Your task to perform on an android device: Open Youtube and go to "Your channel" Image 0: 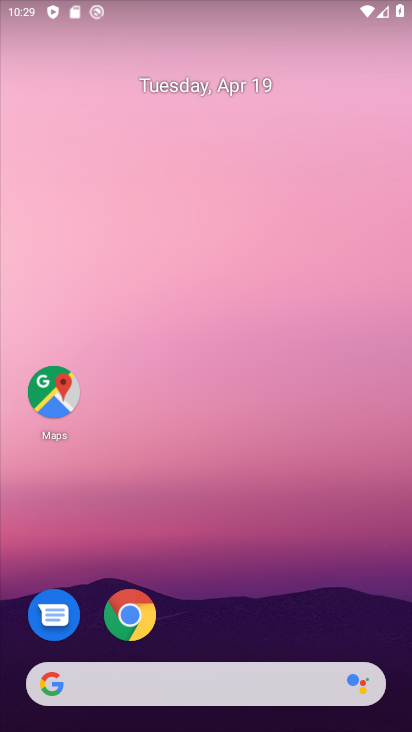
Step 0: drag from (240, 588) to (292, 157)
Your task to perform on an android device: Open Youtube and go to "Your channel" Image 1: 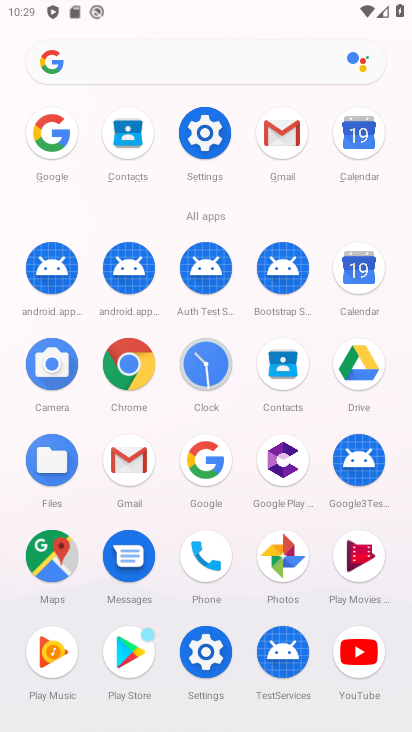
Step 1: click (359, 650)
Your task to perform on an android device: Open Youtube and go to "Your channel" Image 2: 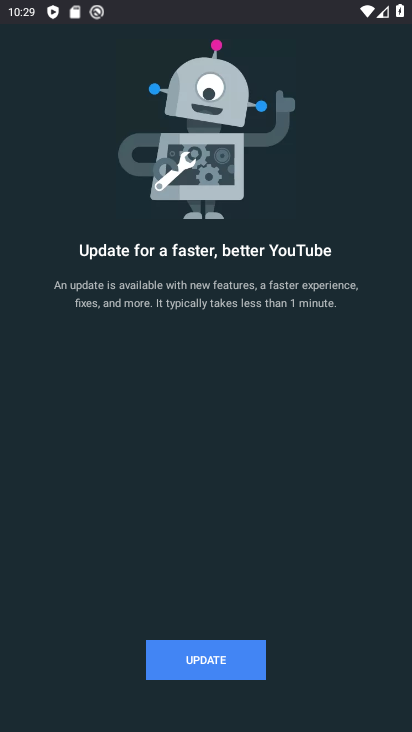
Step 2: click (204, 663)
Your task to perform on an android device: Open Youtube and go to "Your channel" Image 3: 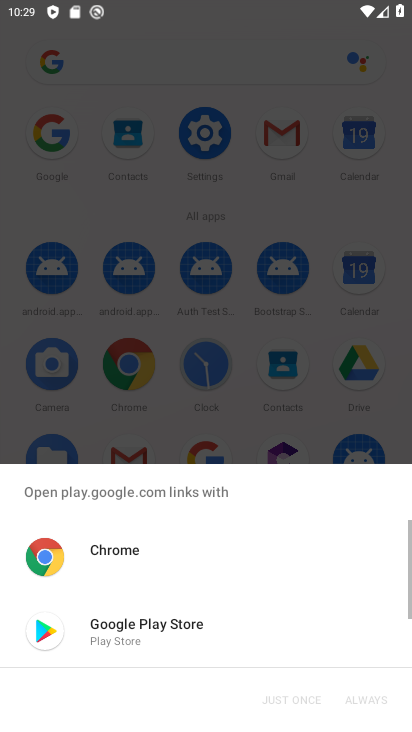
Step 3: click (160, 630)
Your task to perform on an android device: Open Youtube and go to "Your channel" Image 4: 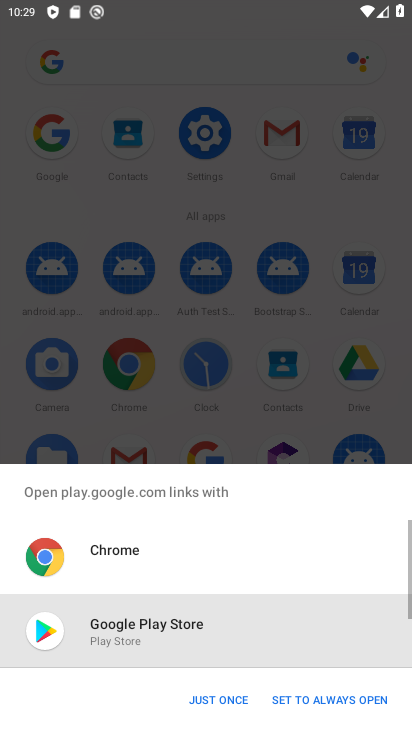
Step 4: click (187, 703)
Your task to perform on an android device: Open Youtube and go to "Your channel" Image 5: 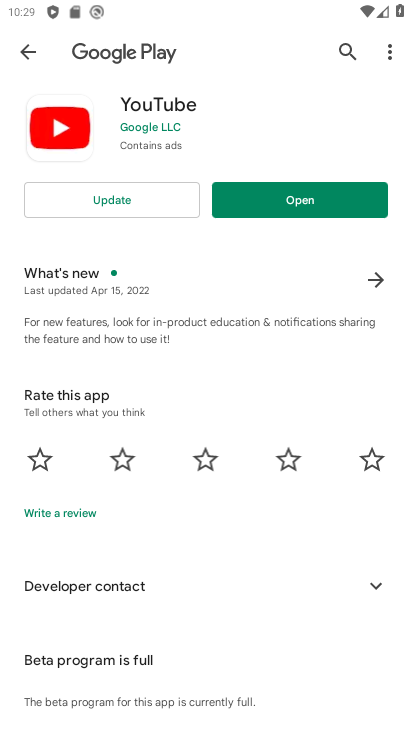
Step 5: click (157, 202)
Your task to perform on an android device: Open Youtube and go to "Your channel" Image 6: 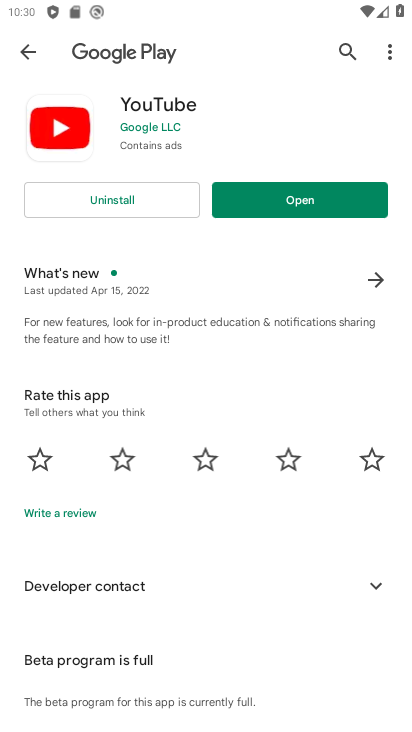
Step 6: click (287, 204)
Your task to perform on an android device: Open Youtube and go to "Your channel" Image 7: 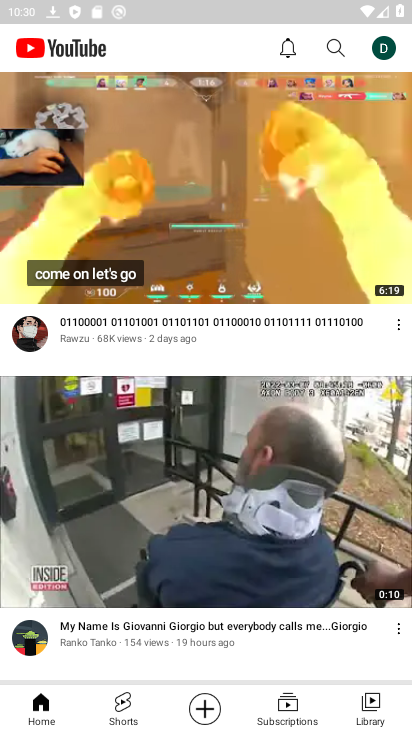
Step 7: click (382, 52)
Your task to perform on an android device: Open Youtube and go to "Your channel" Image 8: 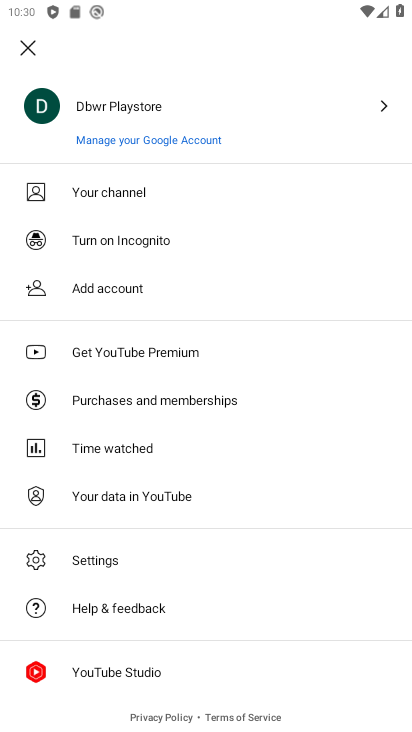
Step 8: click (185, 191)
Your task to perform on an android device: Open Youtube and go to "Your channel" Image 9: 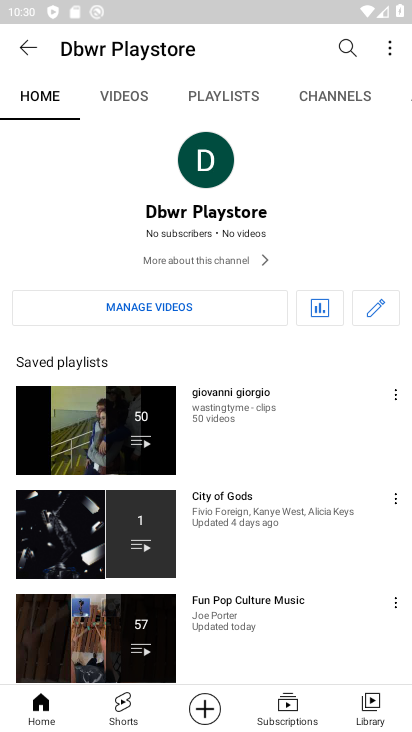
Step 9: task complete